Your task to perform on an android device: turn off javascript in the chrome app Image 0: 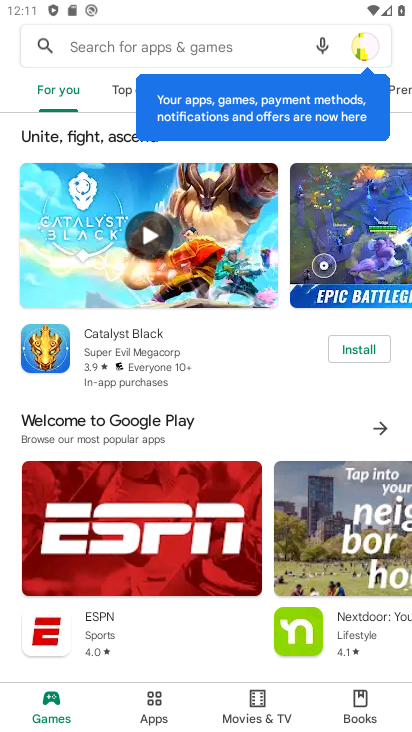
Step 0: press home button
Your task to perform on an android device: turn off javascript in the chrome app Image 1: 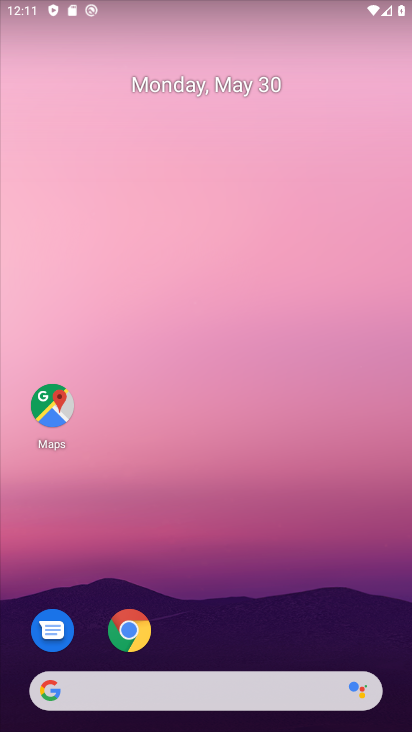
Step 1: click (121, 631)
Your task to perform on an android device: turn off javascript in the chrome app Image 2: 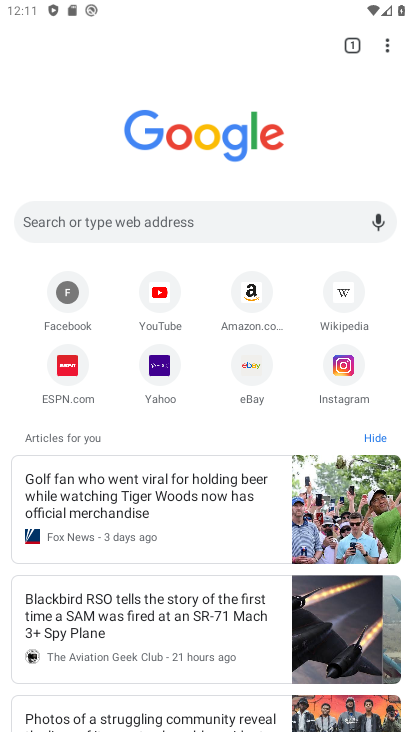
Step 2: drag from (384, 47) to (270, 388)
Your task to perform on an android device: turn off javascript in the chrome app Image 3: 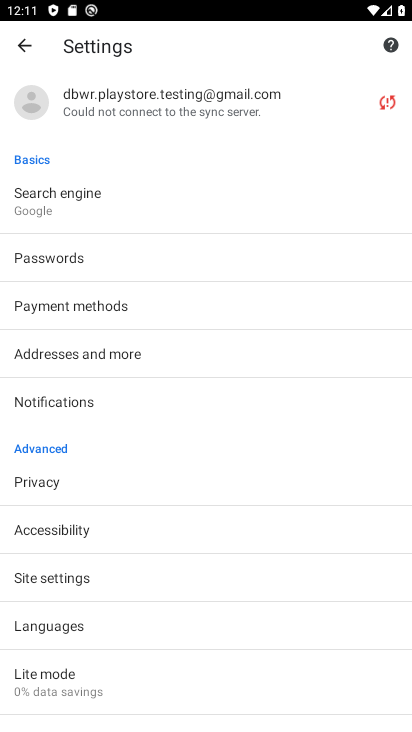
Step 3: click (81, 578)
Your task to perform on an android device: turn off javascript in the chrome app Image 4: 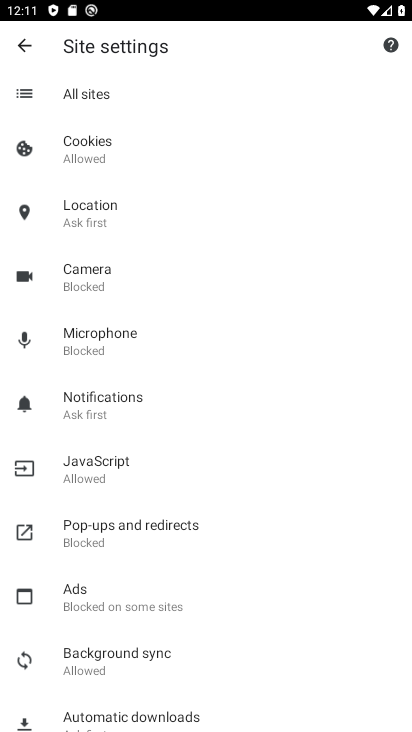
Step 4: click (107, 463)
Your task to perform on an android device: turn off javascript in the chrome app Image 5: 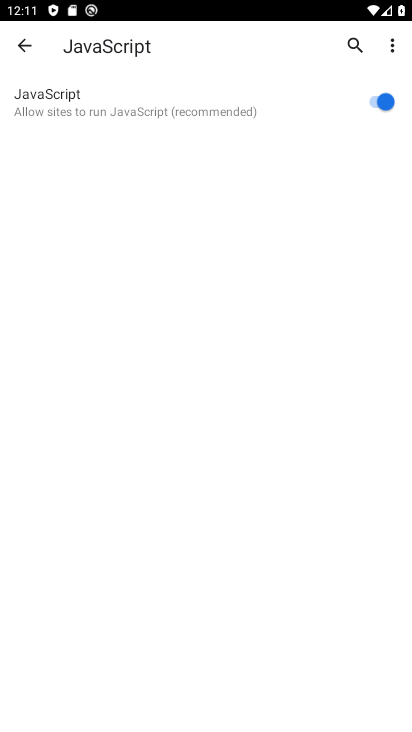
Step 5: click (371, 100)
Your task to perform on an android device: turn off javascript in the chrome app Image 6: 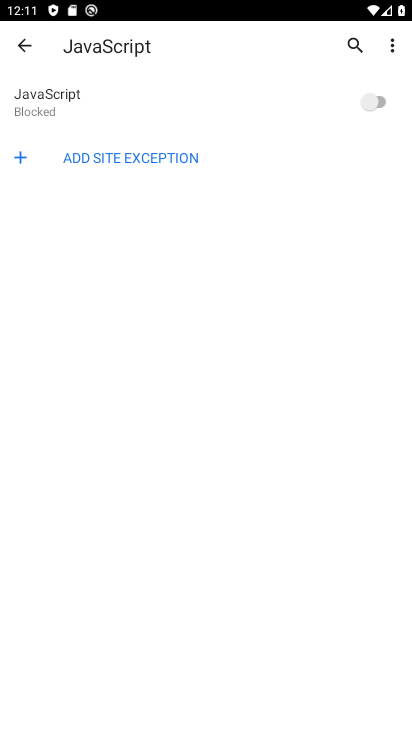
Step 6: task complete